Your task to perform on an android device: Open Chrome and go to the settings page Image 0: 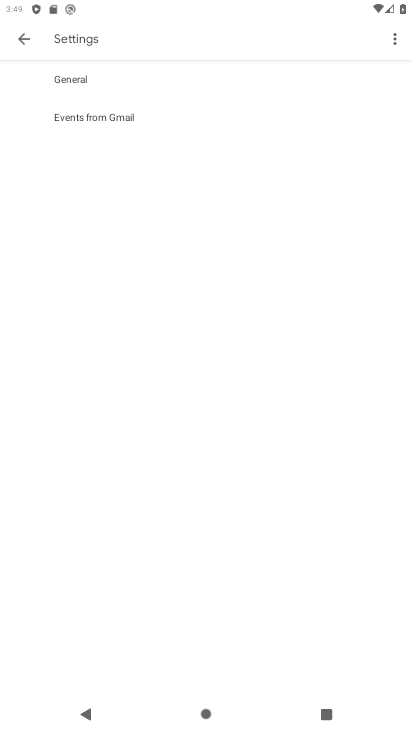
Step 0: press home button
Your task to perform on an android device: Open Chrome and go to the settings page Image 1: 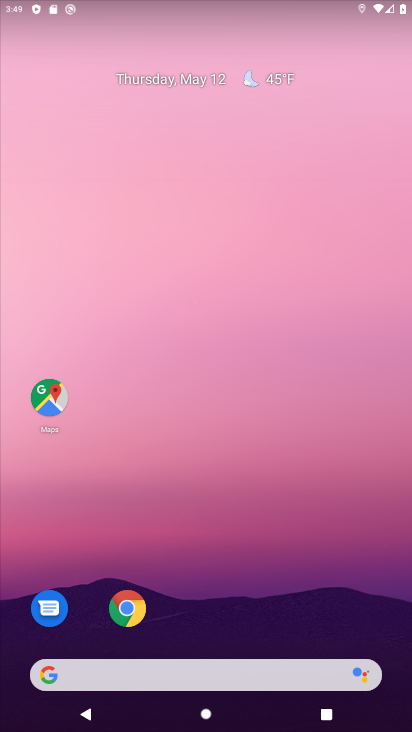
Step 1: click (126, 598)
Your task to perform on an android device: Open Chrome and go to the settings page Image 2: 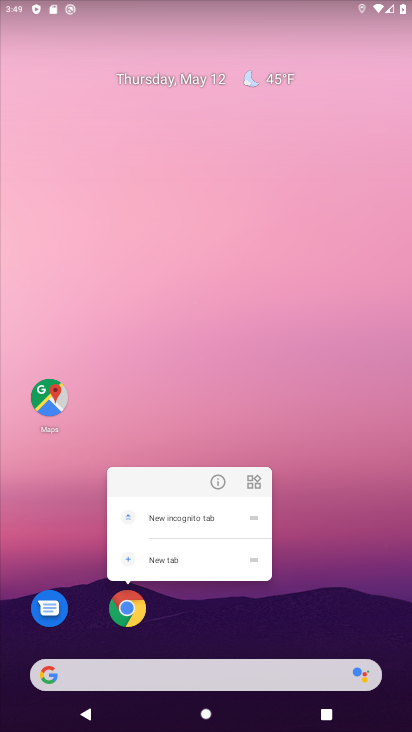
Step 2: click (126, 603)
Your task to perform on an android device: Open Chrome and go to the settings page Image 3: 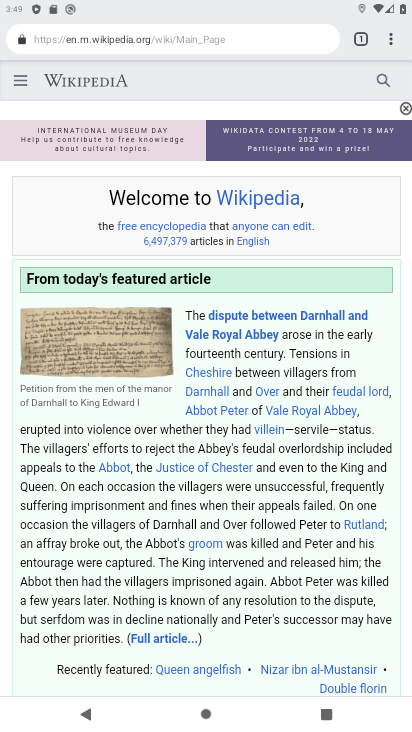
Step 3: task complete